Your task to perform on an android device: Open battery settings Image 0: 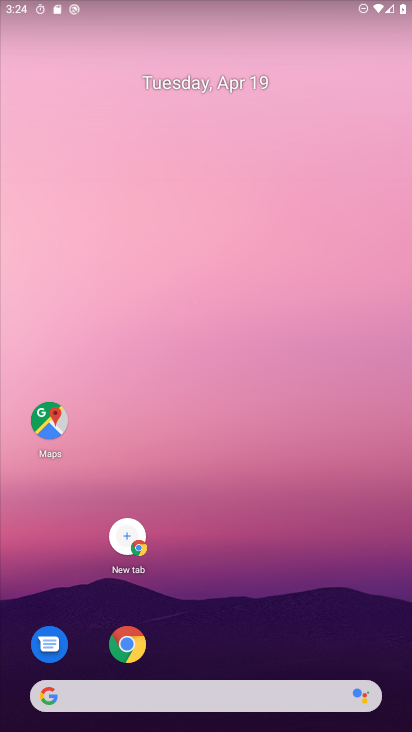
Step 0: drag from (237, 618) to (199, 45)
Your task to perform on an android device: Open battery settings Image 1: 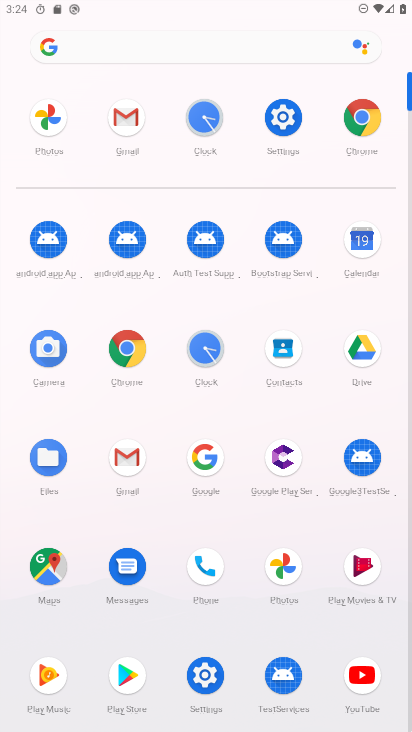
Step 1: click (287, 114)
Your task to perform on an android device: Open battery settings Image 2: 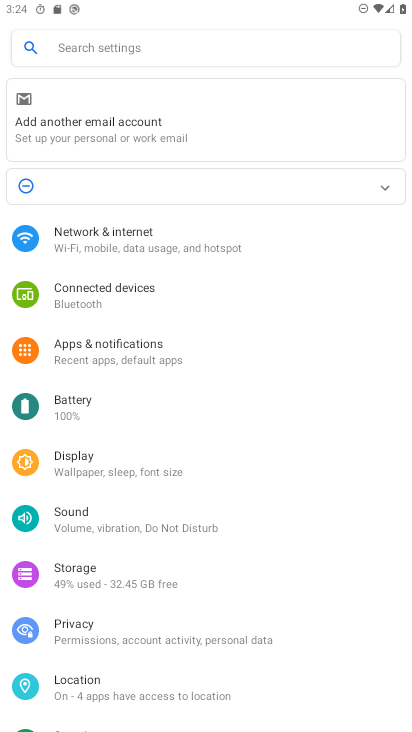
Step 2: click (59, 404)
Your task to perform on an android device: Open battery settings Image 3: 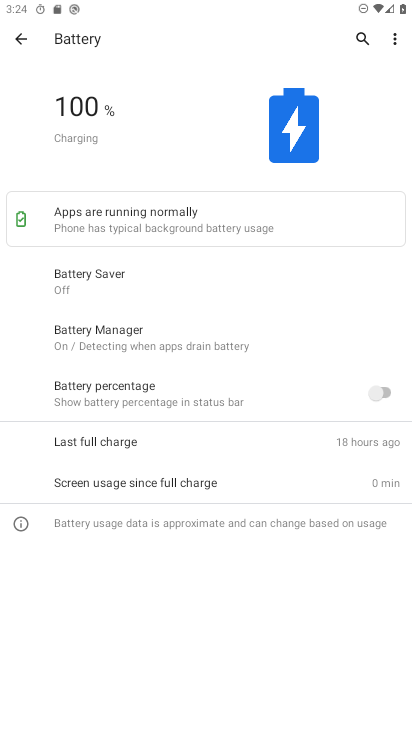
Step 3: click (73, 129)
Your task to perform on an android device: Open battery settings Image 4: 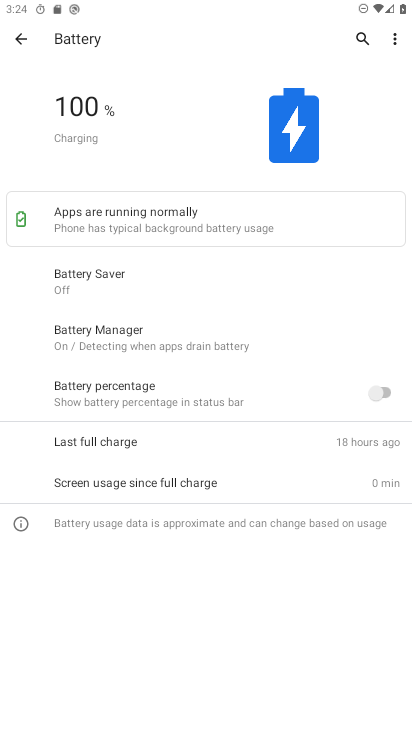
Step 4: task complete